Your task to perform on an android device: delete a single message in the gmail app Image 0: 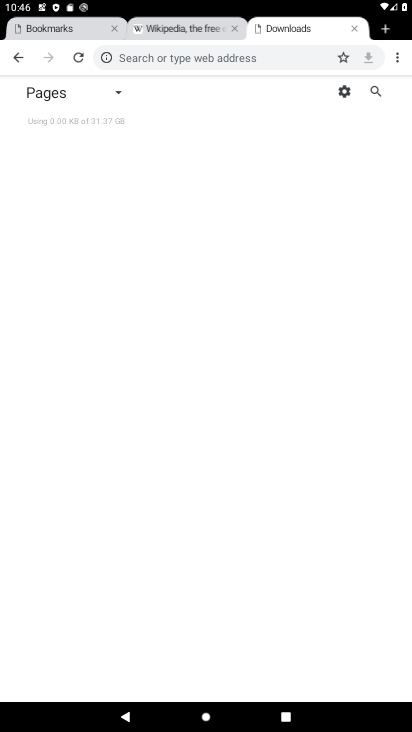
Step 0: press home button
Your task to perform on an android device: delete a single message in the gmail app Image 1: 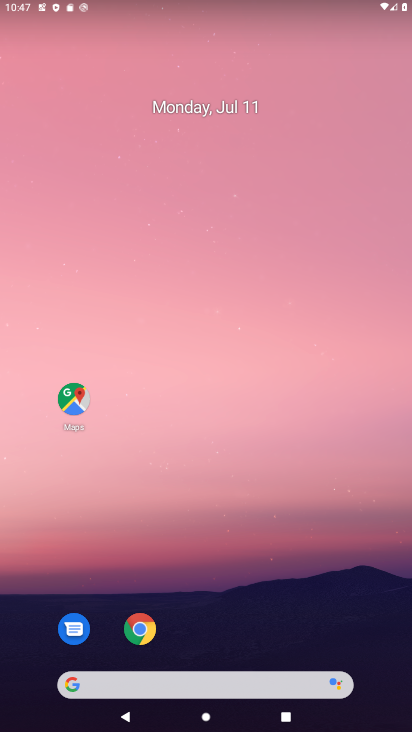
Step 1: drag from (199, 647) to (185, 171)
Your task to perform on an android device: delete a single message in the gmail app Image 2: 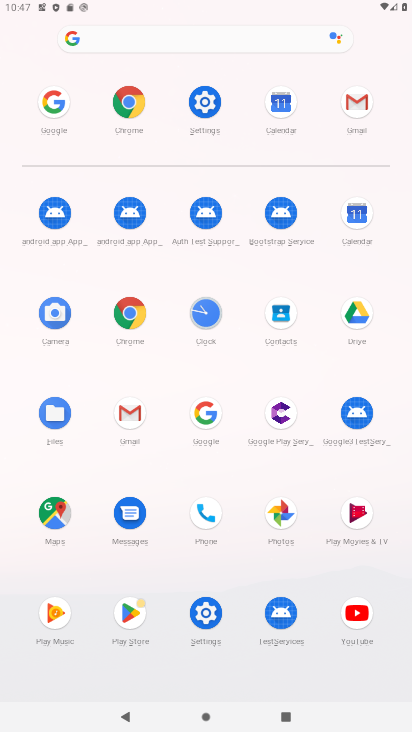
Step 2: click (330, 97)
Your task to perform on an android device: delete a single message in the gmail app Image 3: 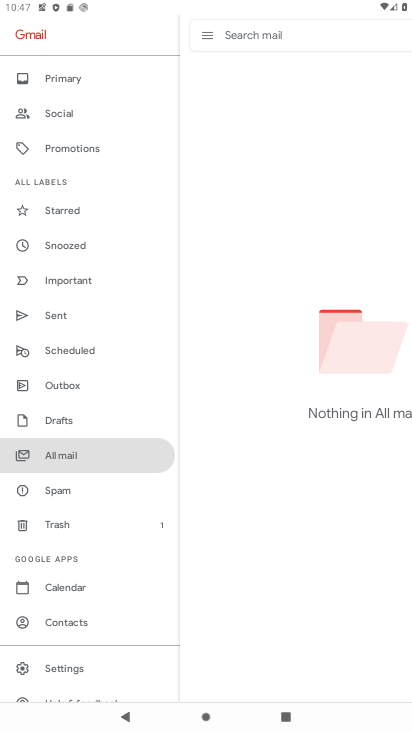
Step 3: click (124, 456)
Your task to perform on an android device: delete a single message in the gmail app Image 4: 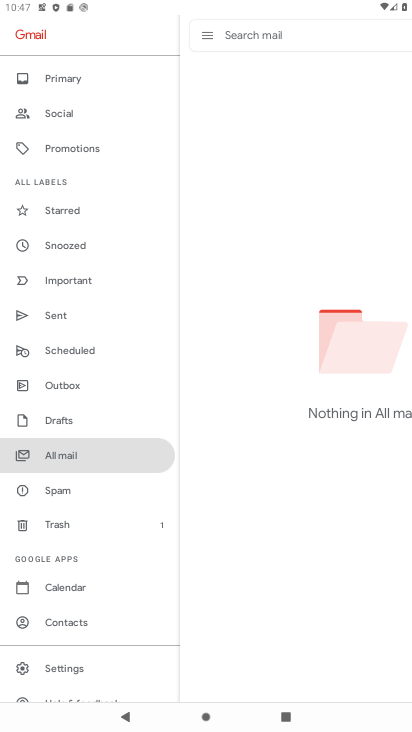
Step 4: task complete